Your task to perform on an android device: move a message to another label in the gmail app Image 0: 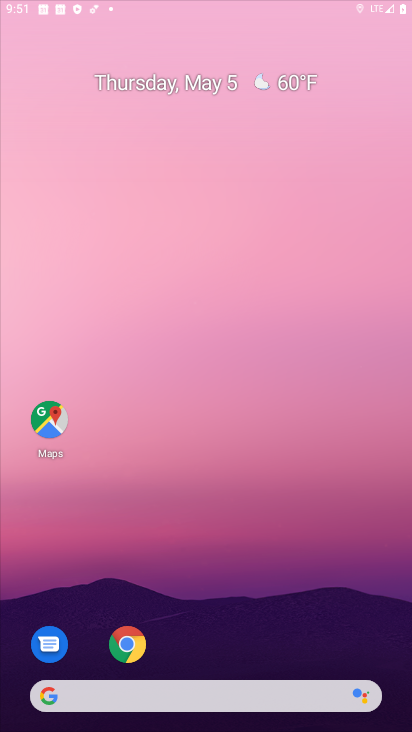
Step 0: click (188, 103)
Your task to perform on an android device: move a message to another label in the gmail app Image 1: 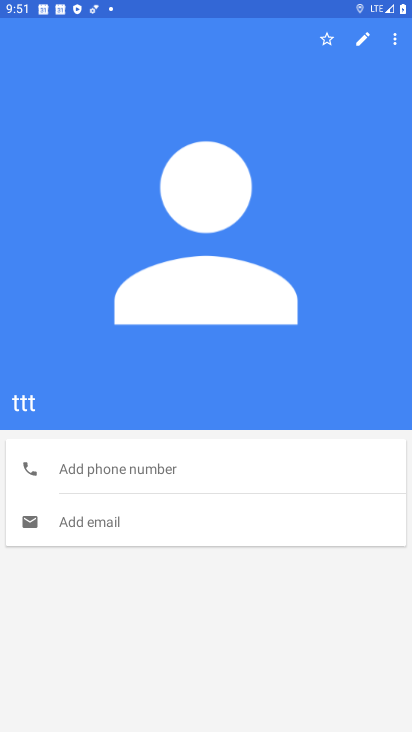
Step 1: press home button
Your task to perform on an android device: move a message to another label in the gmail app Image 2: 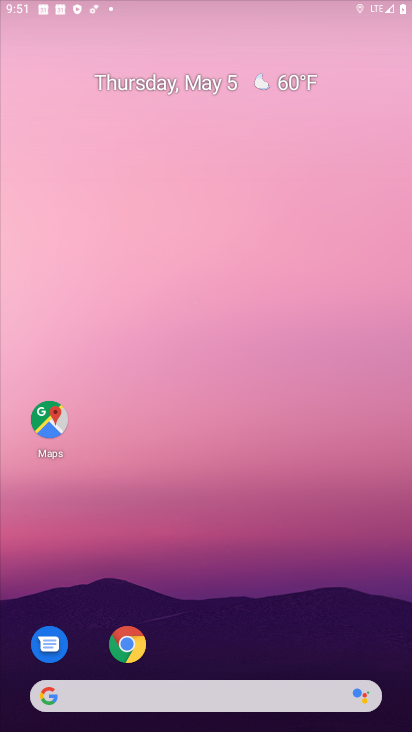
Step 2: drag from (213, 598) to (227, 112)
Your task to perform on an android device: move a message to another label in the gmail app Image 3: 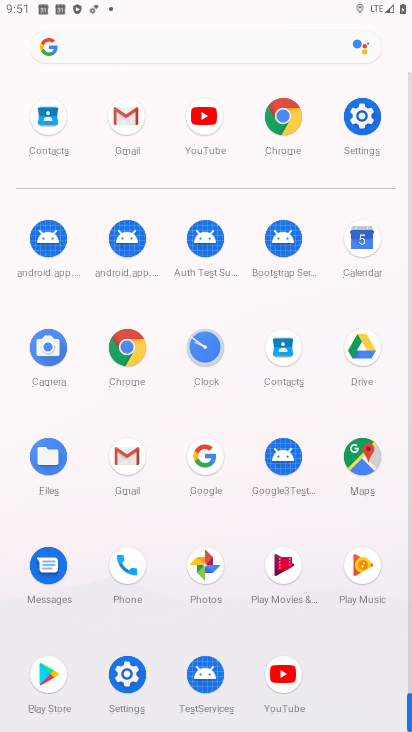
Step 3: click (118, 460)
Your task to perform on an android device: move a message to another label in the gmail app Image 4: 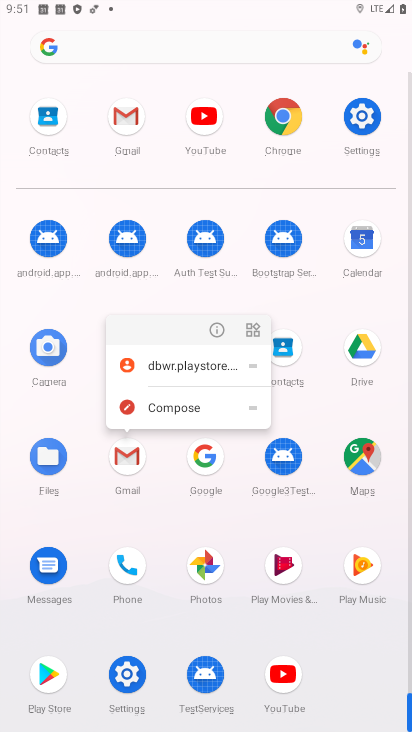
Step 4: click (215, 327)
Your task to perform on an android device: move a message to another label in the gmail app Image 5: 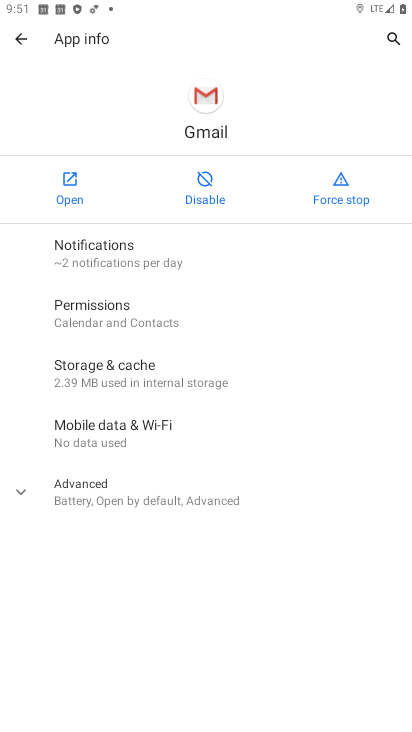
Step 5: click (63, 184)
Your task to perform on an android device: move a message to another label in the gmail app Image 6: 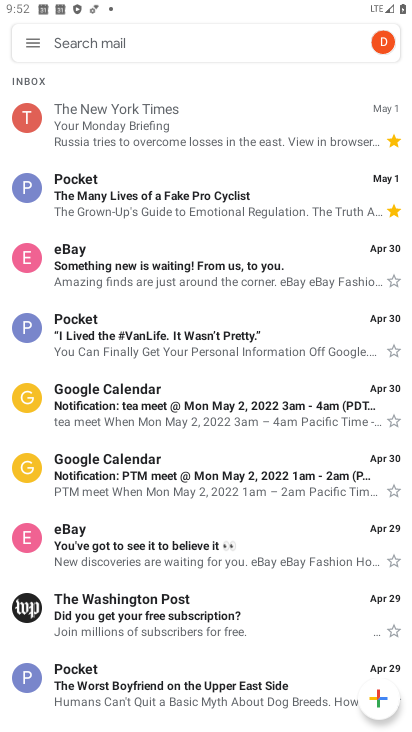
Step 6: drag from (273, 509) to (316, 269)
Your task to perform on an android device: move a message to another label in the gmail app Image 7: 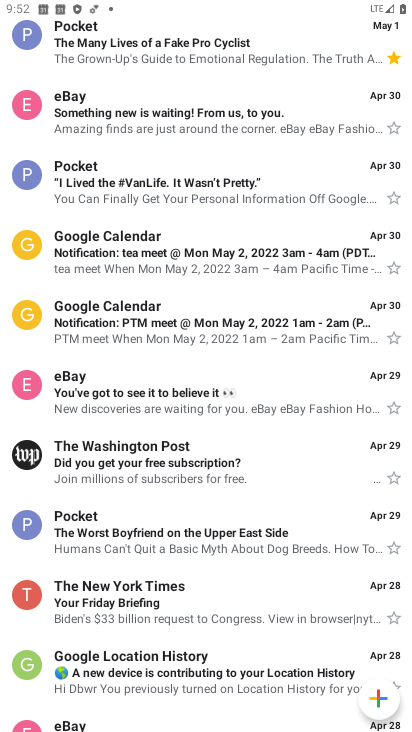
Step 7: drag from (108, 178) to (152, 677)
Your task to perform on an android device: move a message to another label in the gmail app Image 8: 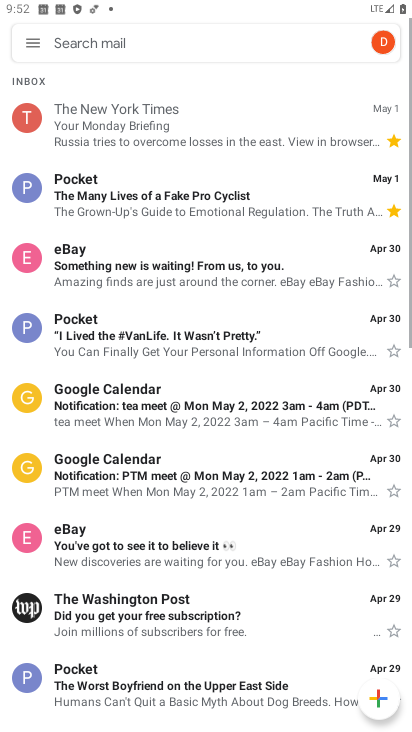
Step 8: click (29, 42)
Your task to perform on an android device: move a message to another label in the gmail app Image 9: 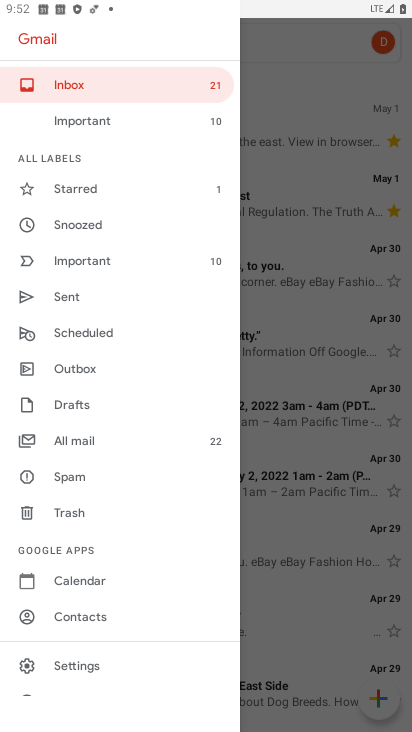
Step 9: click (286, 105)
Your task to perform on an android device: move a message to another label in the gmail app Image 10: 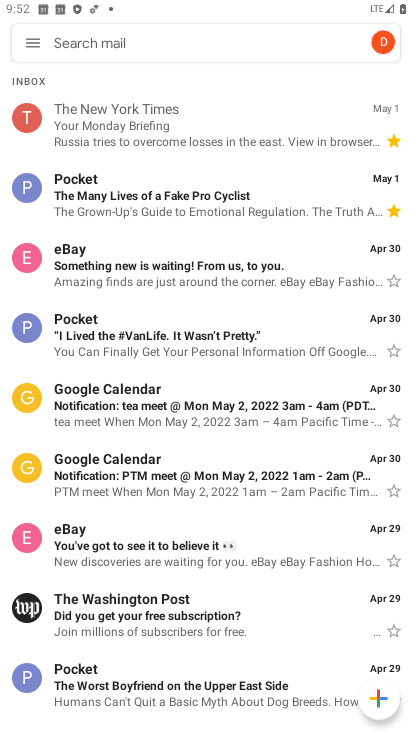
Step 10: click (186, 185)
Your task to perform on an android device: move a message to another label in the gmail app Image 11: 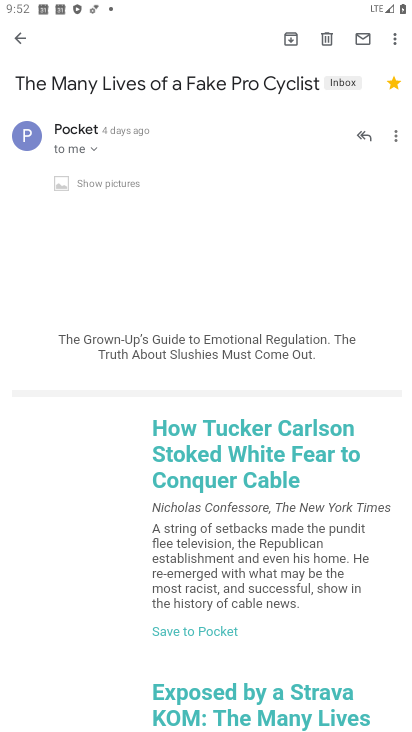
Step 11: click (393, 37)
Your task to perform on an android device: move a message to another label in the gmail app Image 12: 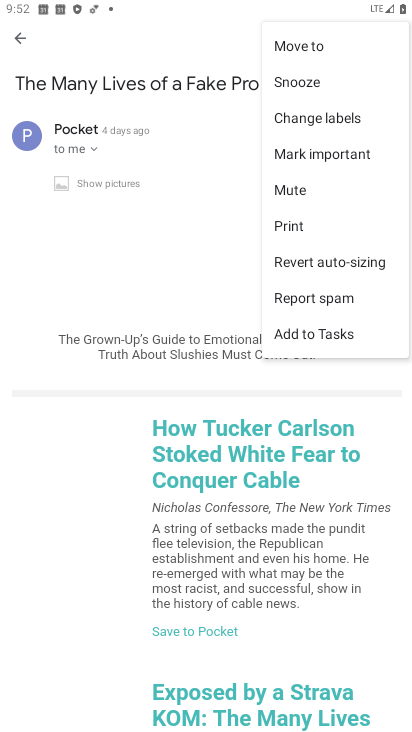
Step 12: click (325, 126)
Your task to perform on an android device: move a message to another label in the gmail app Image 13: 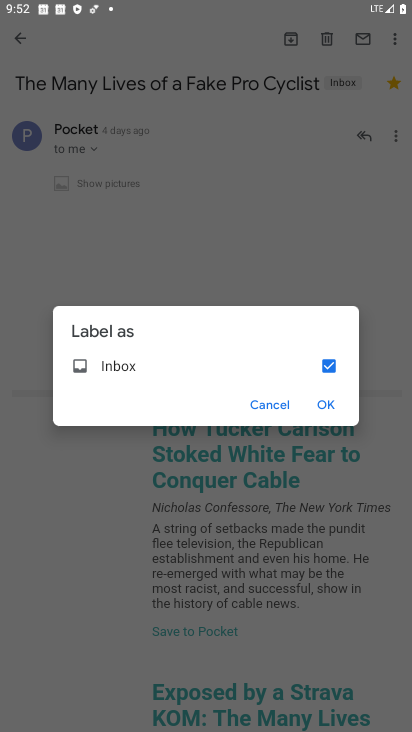
Step 13: click (325, 402)
Your task to perform on an android device: move a message to another label in the gmail app Image 14: 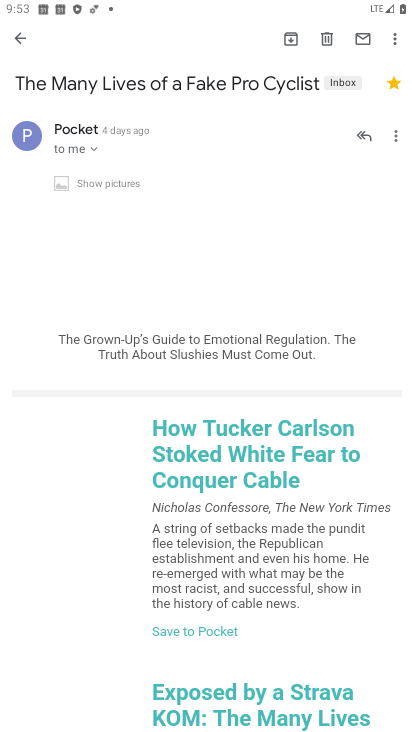
Step 14: task complete